Your task to perform on an android device: Show me the alarms in the clock app Image 0: 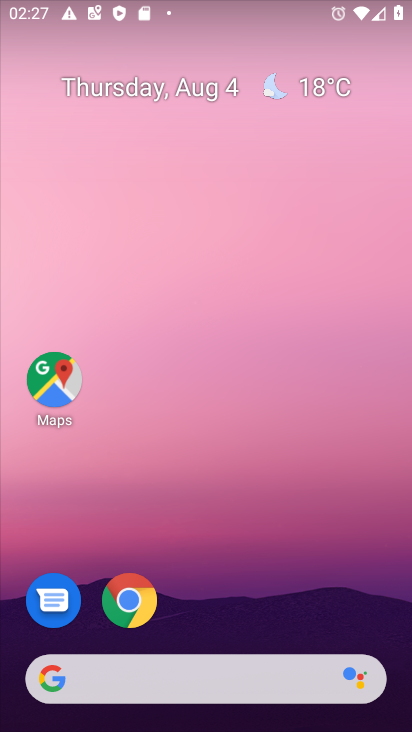
Step 0: drag from (164, 679) to (371, 0)
Your task to perform on an android device: Show me the alarms in the clock app Image 1: 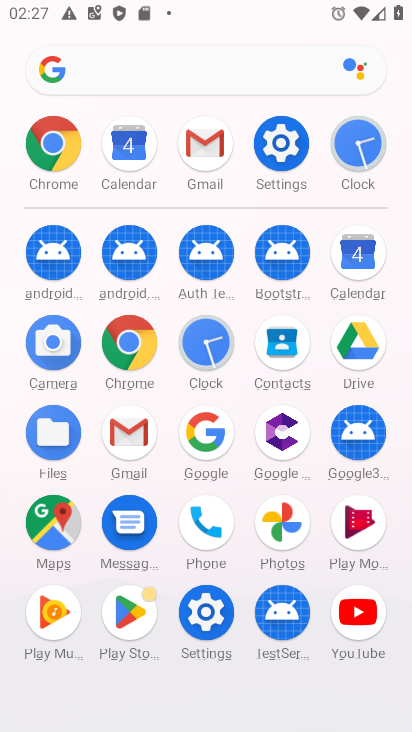
Step 1: click (215, 340)
Your task to perform on an android device: Show me the alarms in the clock app Image 2: 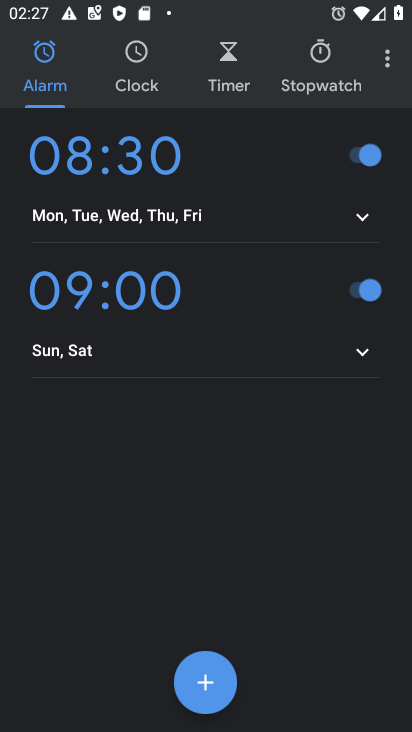
Step 2: task complete